Your task to perform on an android device: turn on data saver in the chrome app Image 0: 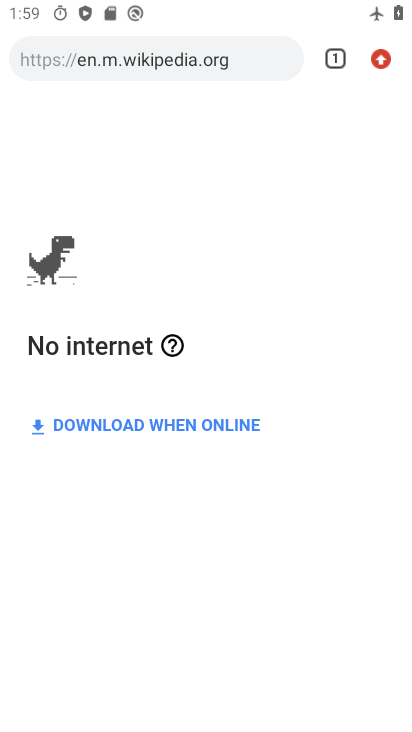
Step 0: drag from (381, 56) to (205, 622)
Your task to perform on an android device: turn on data saver in the chrome app Image 1: 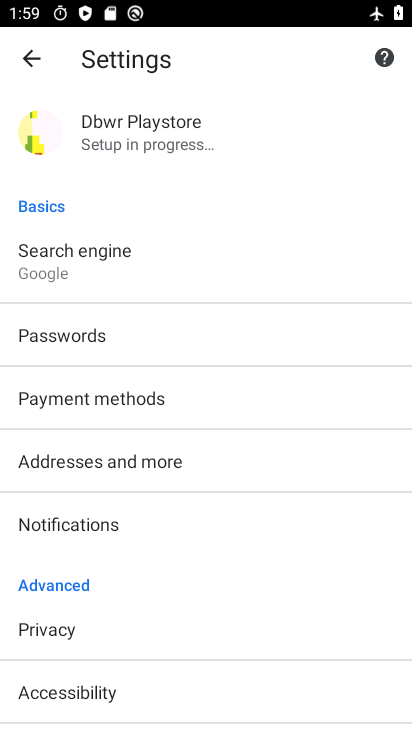
Step 1: drag from (116, 667) to (98, 275)
Your task to perform on an android device: turn on data saver in the chrome app Image 2: 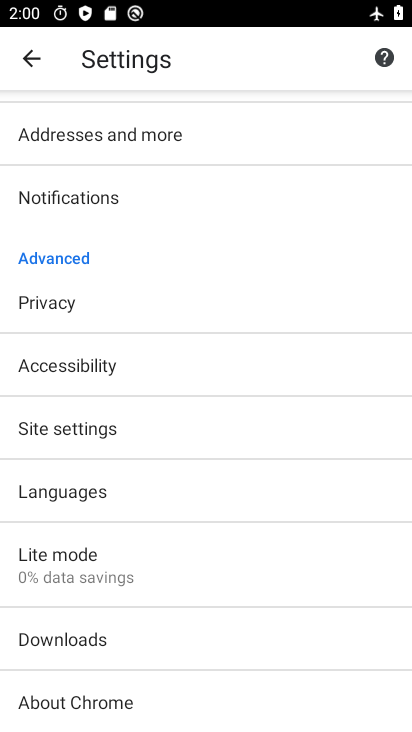
Step 2: click (89, 557)
Your task to perform on an android device: turn on data saver in the chrome app Image 3: 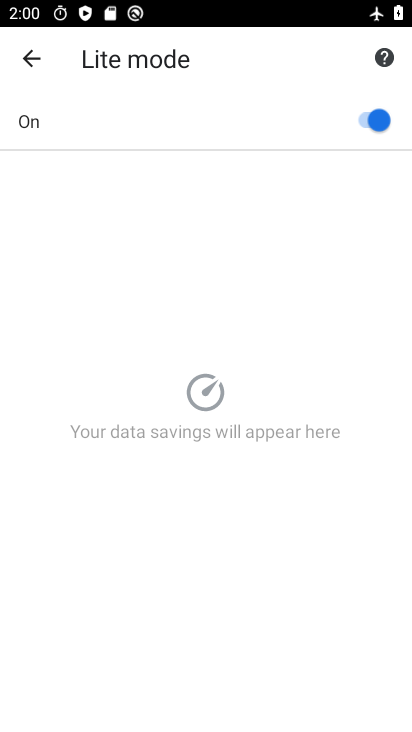
Step 3: task complete